Your task to perform on an android device: Clear the cart on ebay. Add "jbl flip 4" to the cart on ebay, then select checkout. Image 0: 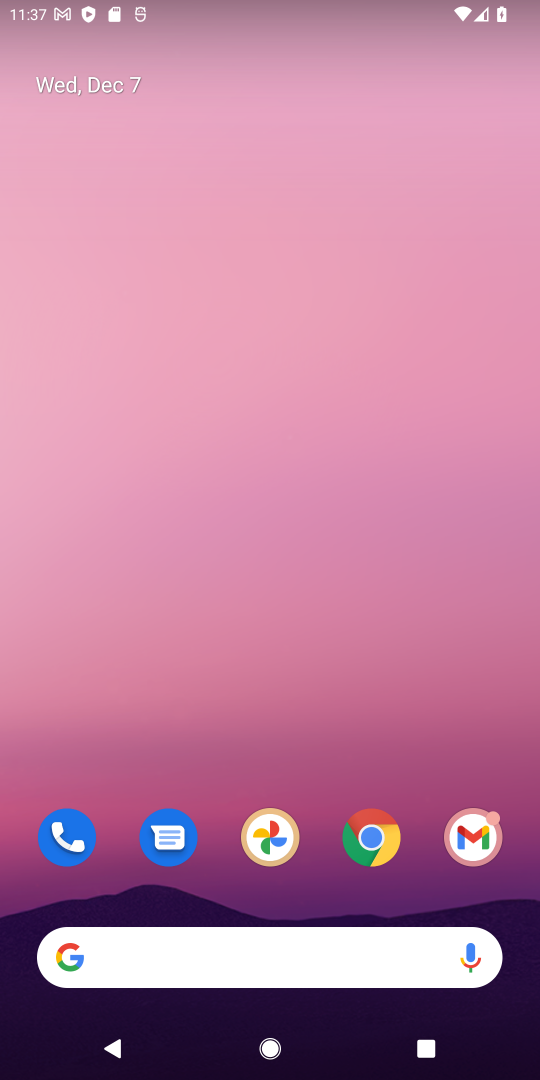
Step 0: click (375, 834)
Your task to perform on an android device: Clear the cart on ebay. Add "jbl flip 4" to the cart on ebay, then select checkout. Image 1: 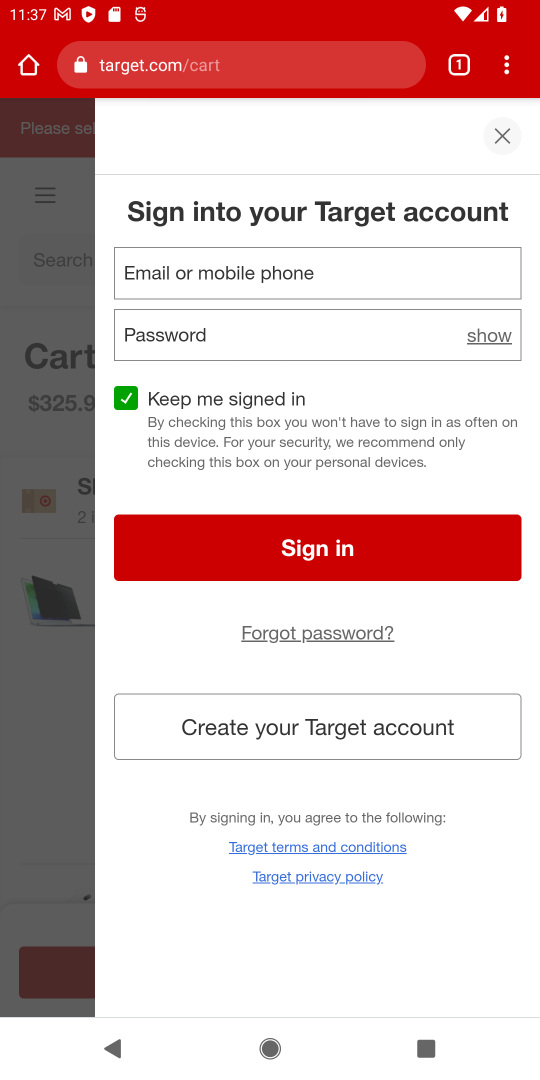
Step 1: click (290, 66)
Your task to perform on an android device: Clear the cart on ebay. Add "jbl flip 4" to the cart on ebay, then select checkout. Image 2: 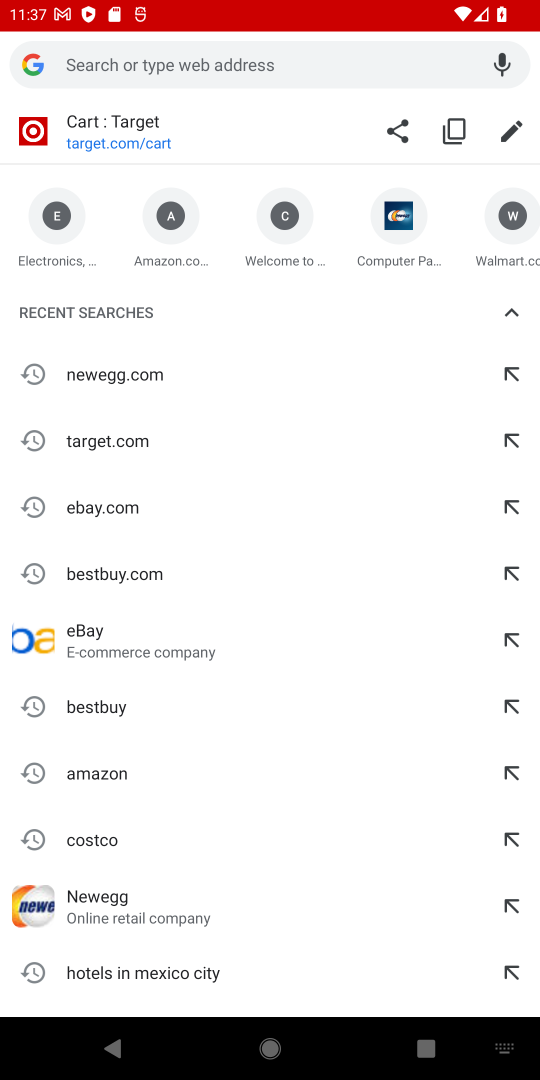
Step 2: click (108, 501)
Your task to perform on an android device: Clear the cart on ebay. Add "jbl flip 4" to the cart on ebay, then select checkout. Image 3: 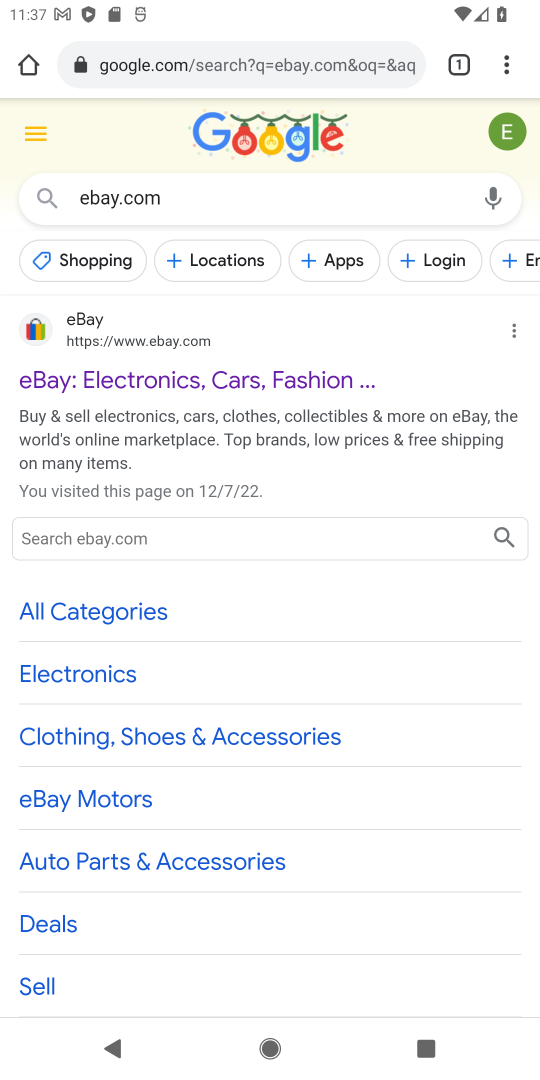
Step 3: click (156, 332)
Your task to perform on an android device: Clear the cart on ebay. Add "jbl flip 4" to the cart on ebay, then select checkout. Image 4: 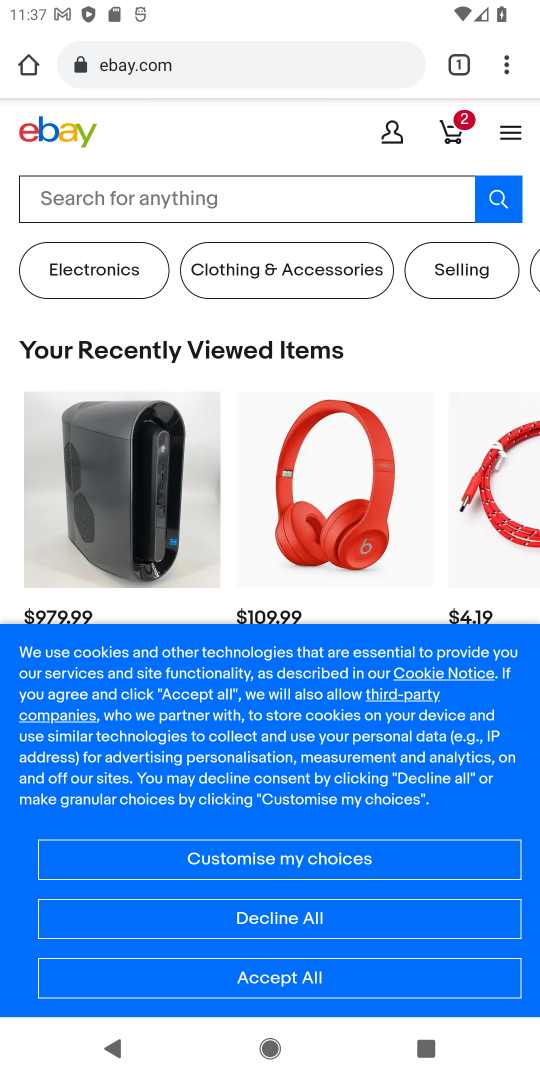
Step 4: click (307, 974)
Your task to perform on an android device: Clear the cart on ebay. Add "jbl flip 4" to the cart on ebay, then select checkout. Image 5: 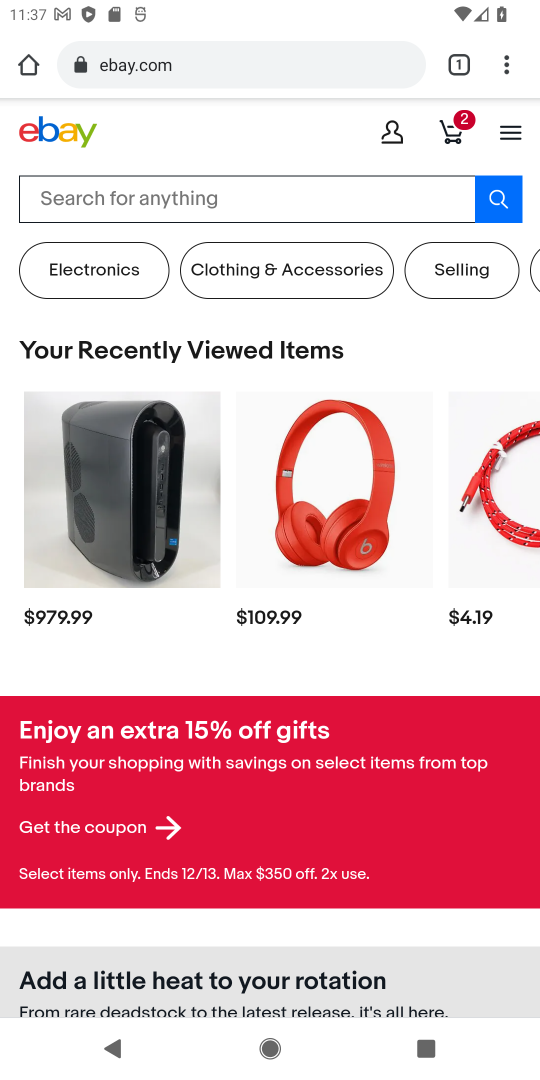
Step 5: click (445, 133)
Your task to perform on an android device: Clear the cart on ebay. Add "jbl flip 4" to the cart on ebay, then select checkout. Image 6: 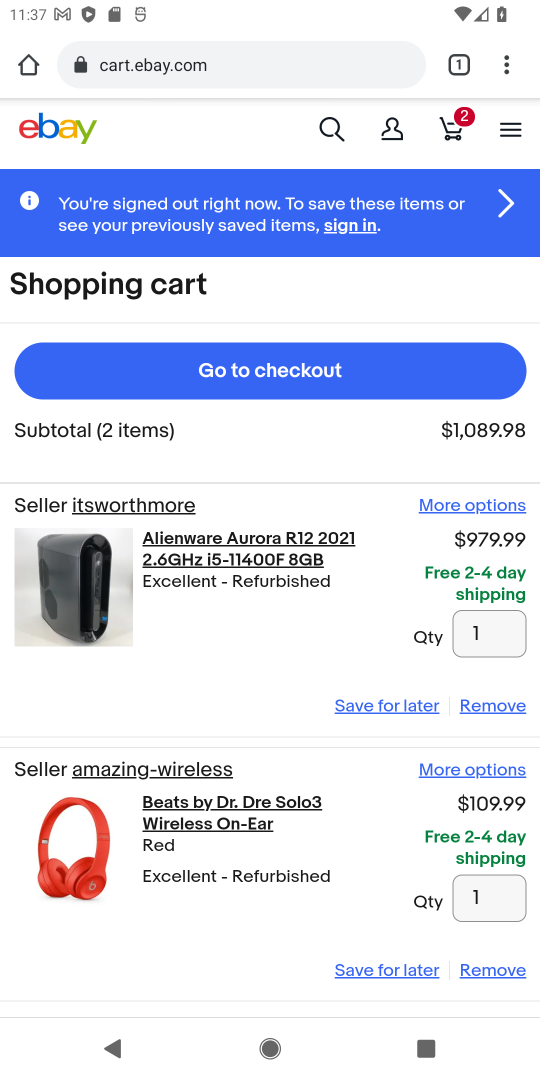
Step 6: click (486, 704)
Your task to perform on an android device: Clear the cart on ebay. Add "jbl flip 4" to the cart on ebay, then select checkout. Image 7: 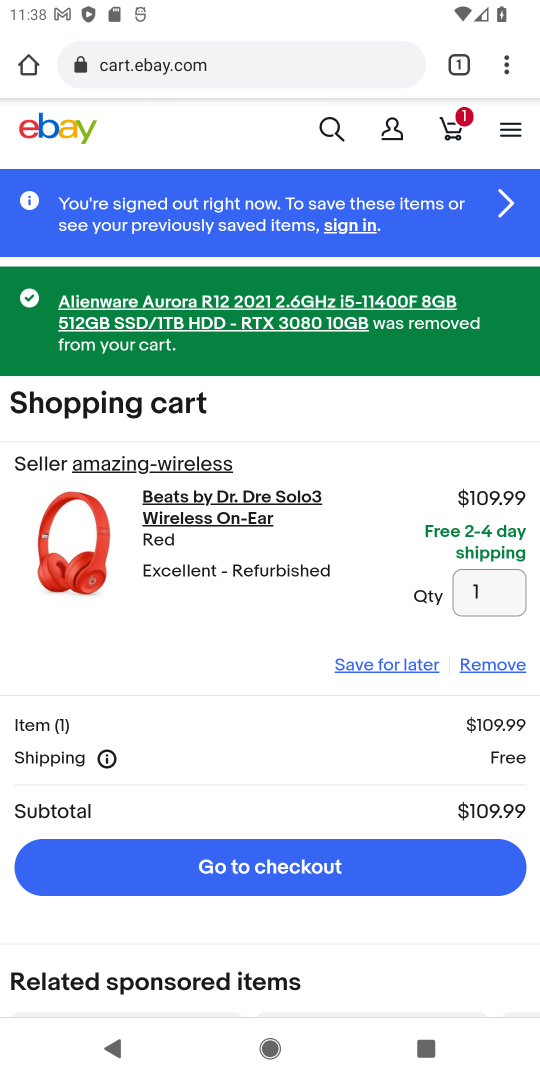
Step 7: click (489, 664)
Your task to perform on an android device: Clear the cart on ebay. Add "jbl flip 4" to the cart on ebay, then select checkout. Image 8: 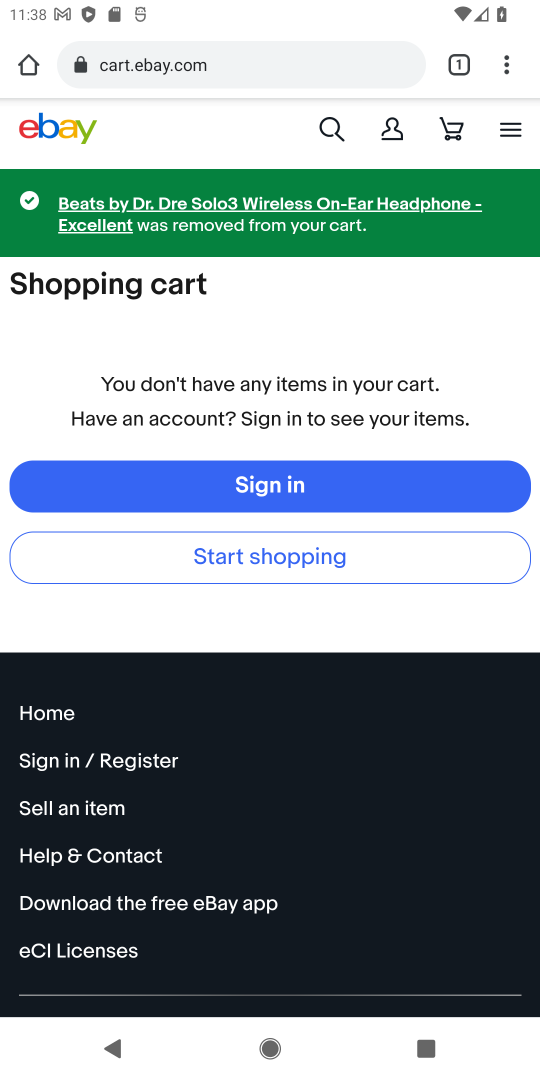
Step 8: click (334, 128)
Your task to perform on an android device: Clear the cart on ebay. Add "jbl flip 4" to the cart on ebay, then select checkout. Image 9: 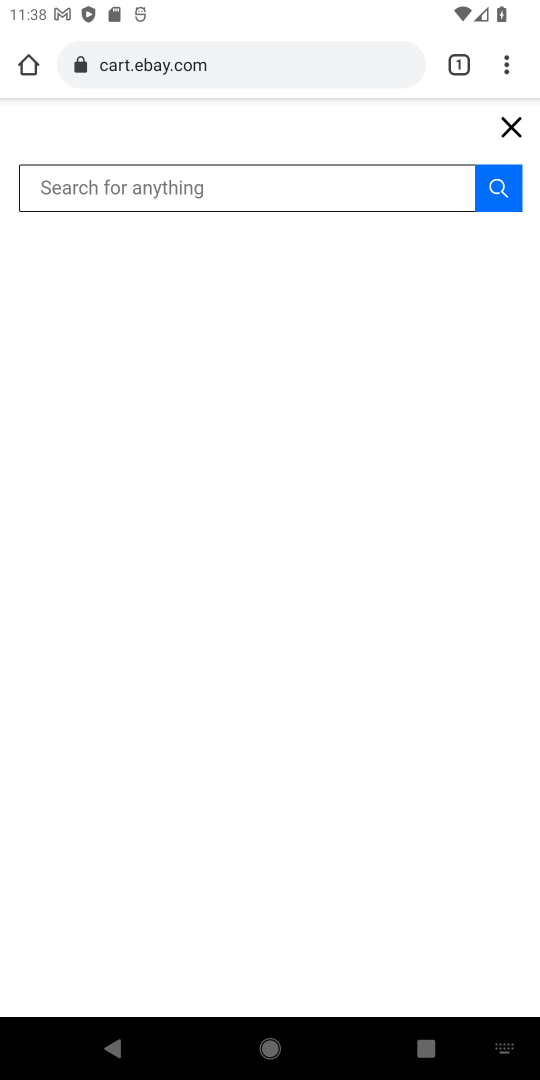
Step 9: press enter
Your task to perform on an android device: Clear the cart on ebay. Add "jbl flip 4" to the cart on ebay, then select checkout. Image 10: 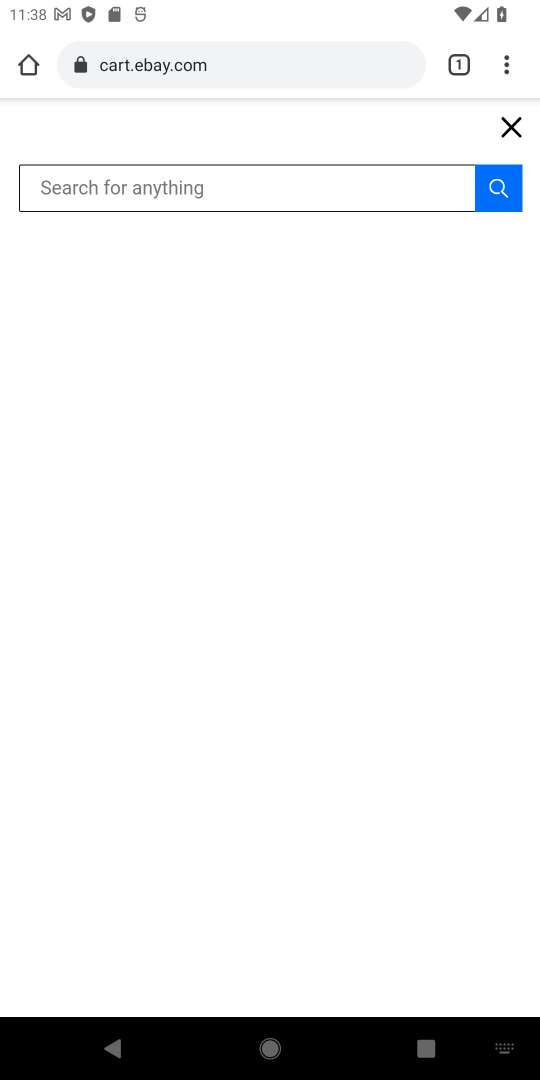
Step 10: type "jbl flip 4"
Your task to perform on an android device: Clear the cart on ebay. Add "jbl flip 4" to the cart on ebay, then select checkout. Image 11: 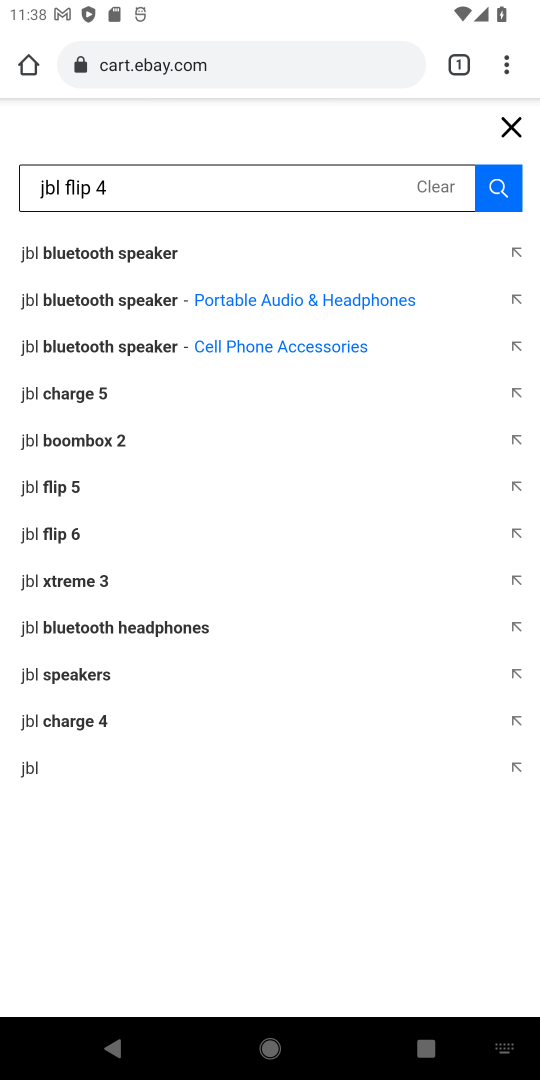
Step 11: click (498, 182)
Your task to perform on an android device: Clear the cart on ebay. Add "jbl flip 4" to the cart on ebay, then select checkout. Image 12: 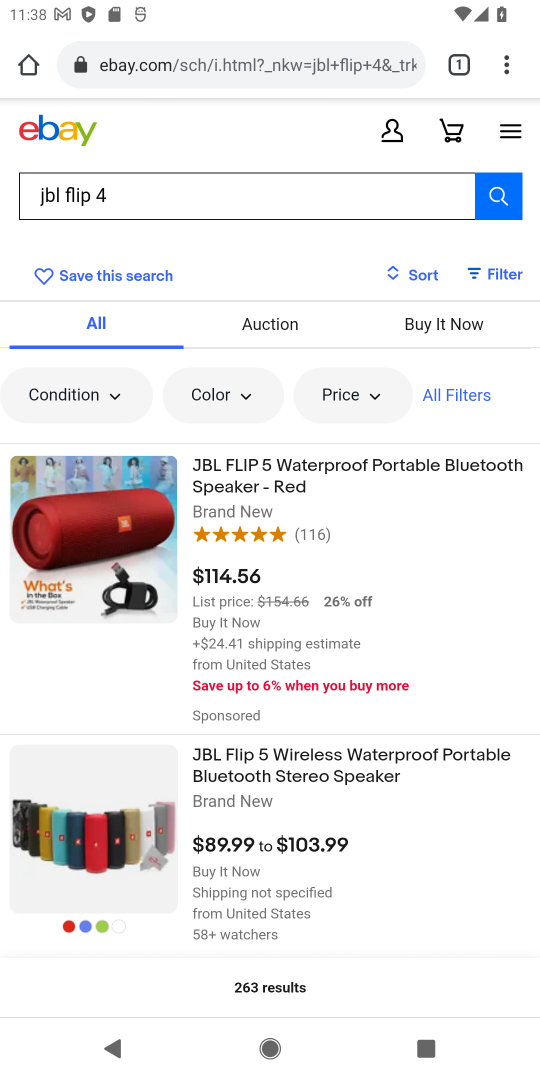
Step 12: drag from (429, 825) to (455, 429)
Your task to perform on an android device: Clear the cart on ebay. Add "jbl flip 4" to the cart on ebay, then select checkout. Image 13: 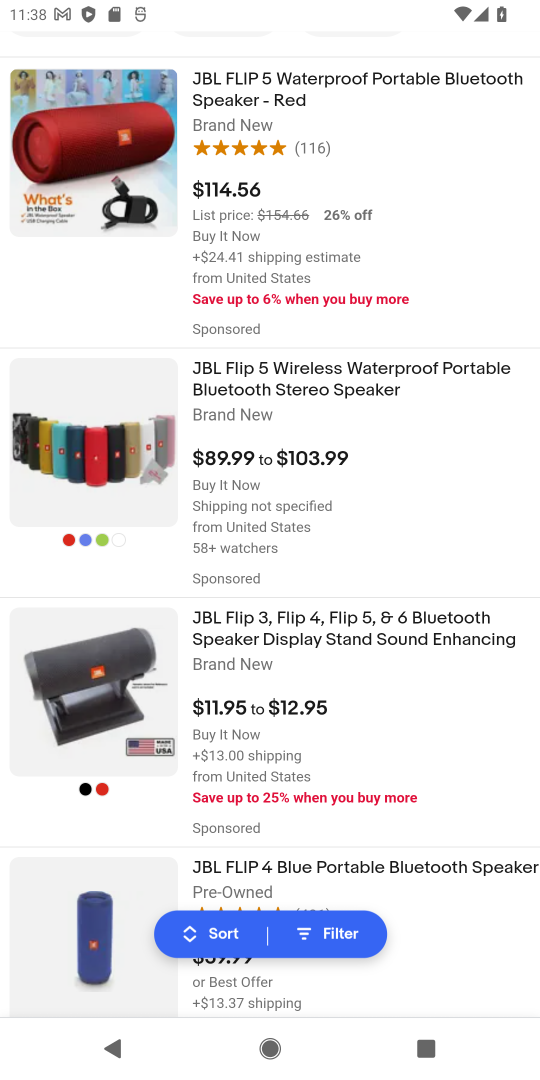
Step 13: click (82, 914)
Your task to perform on an android device: Clear the cart on ebay. Add "jbl flip 4" to the cart on ebay, then select checkout. Image 14: 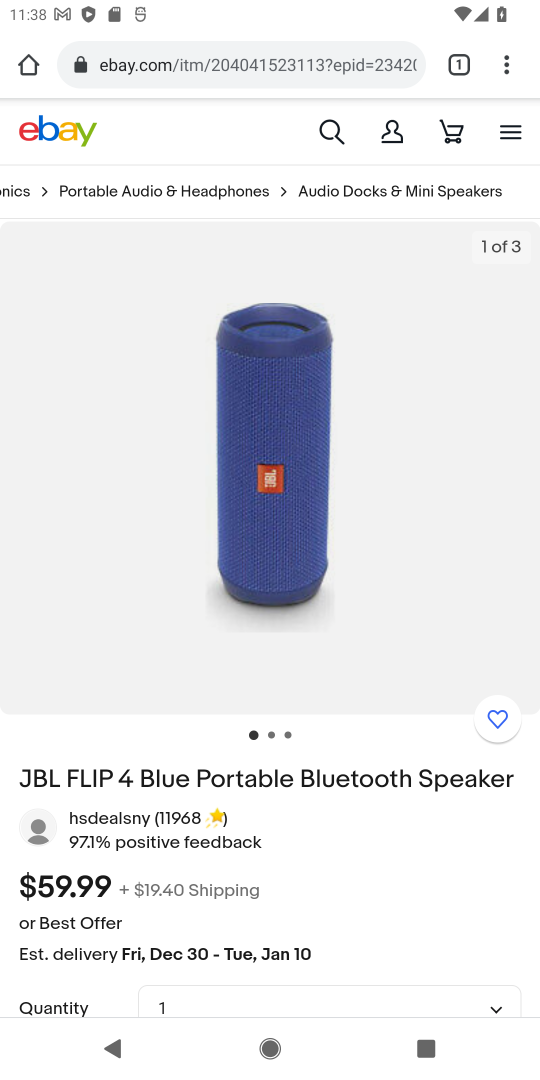
Step 14: drag from (438, 903) to (397, 433)
Your task to perform on an android device: Clear the cart on ebay. Add "jbl flip 4" to the cart on ebay, then select checkout. Image 15: 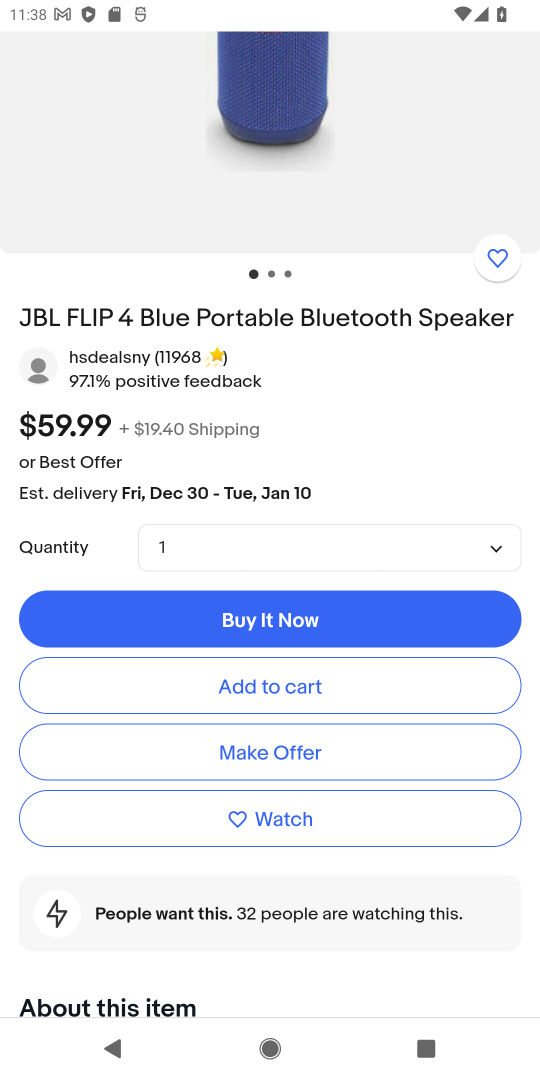
Step 15: click (276, 684)
Your task to perform on an android device: Clear the cart on ebay. Add "jbl flip 4" to the cart on ebay, then select checkout. Image 16: 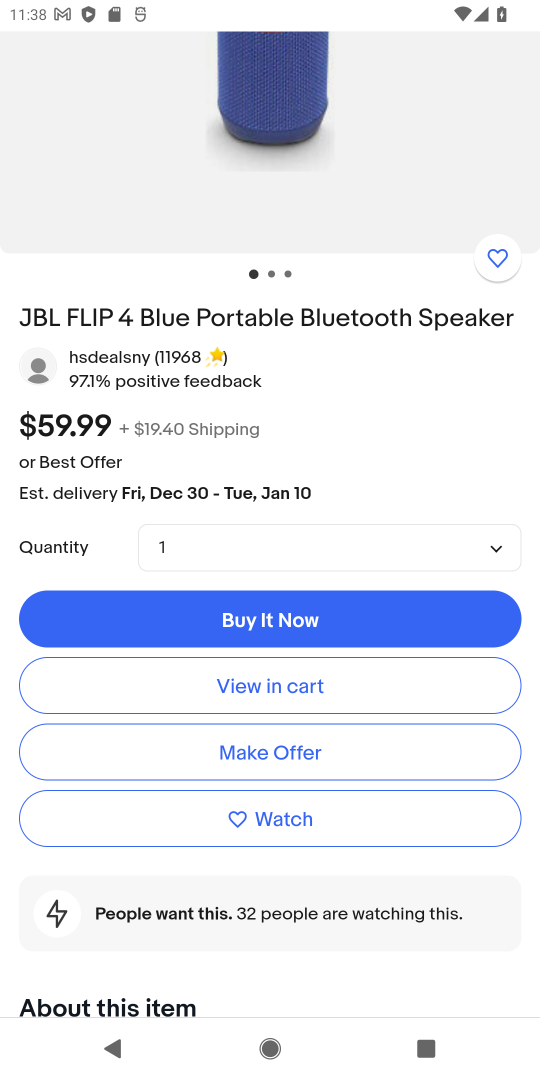
Step 16: click (296, 686)
Your task to perform on an android device: Clear the cart on ebay. Add "jbl flip 4" to the cart on ebay, then select checkout. Image 17: 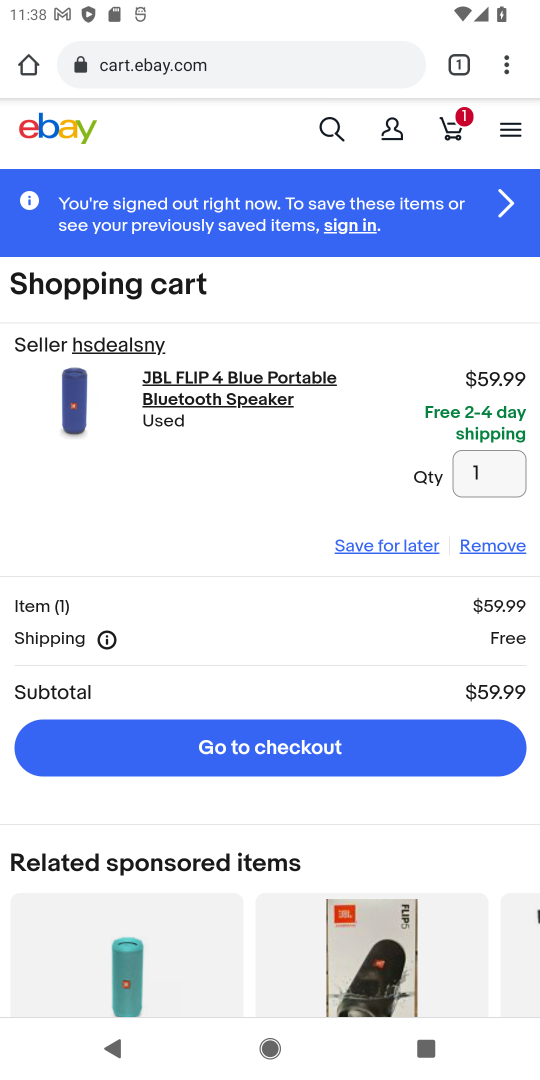
Step 17: click (287, 743)
Your task to perform on an android device: Clear the cart on ebay. Add "jbl flip 4" to the cart on ebay, then select checkout. Image 18: 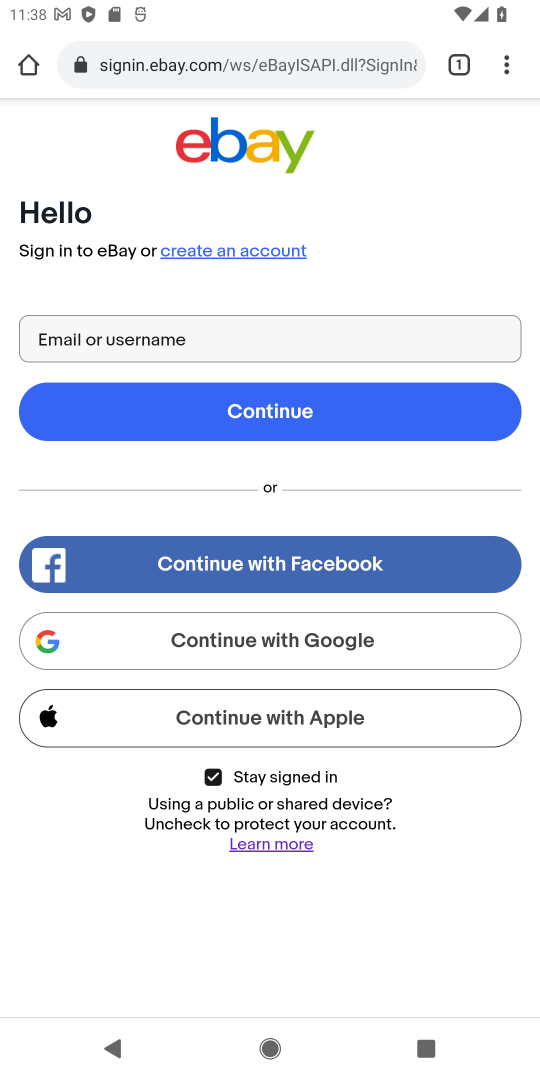
Step 18: task complete